Your task to perform on an android device: Show me popular videos on Youtube Image 0: 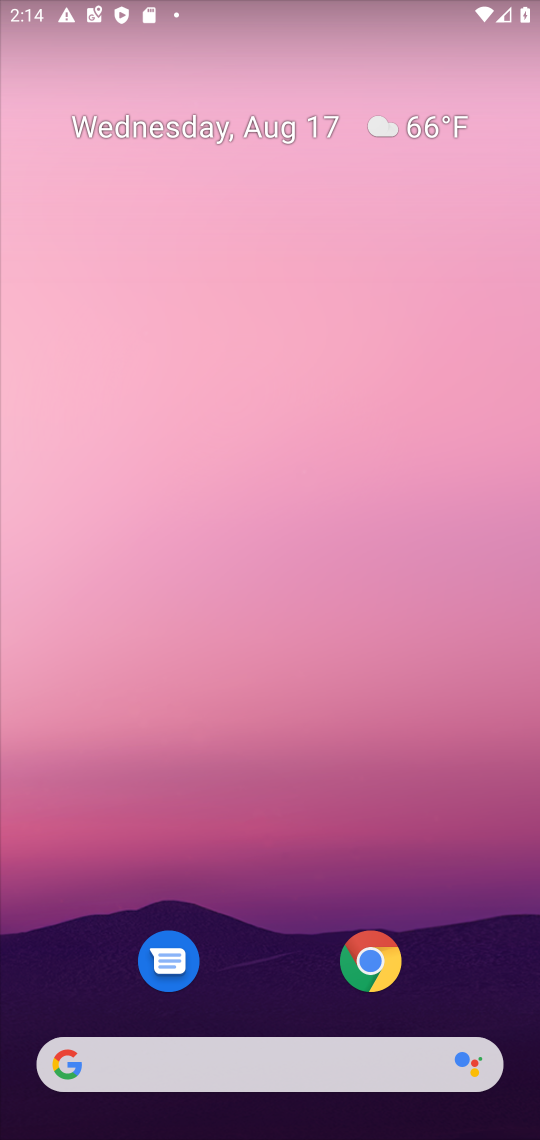
Step 0: drag from (251, 1107) to (329, 86)
Your task to perform on an android device: Show me popular videos on Youtube Image 1: 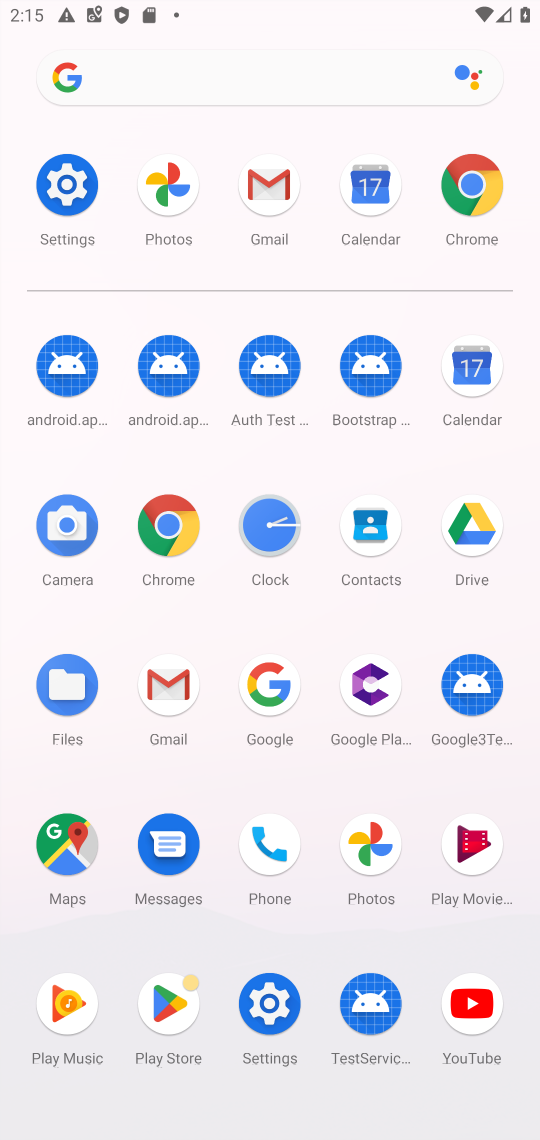
Step 1: click (471, 1019)
Your task to perform on an android device: Show me popular videos on Youtube Image 2: 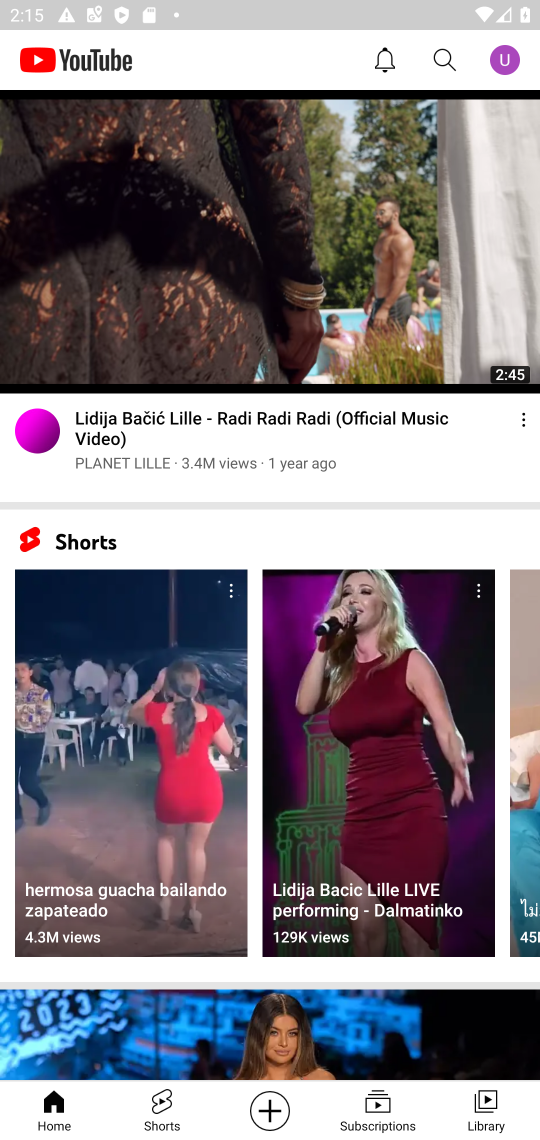
Step 2: task complete